Your task to perform on an android device: remove spam from my inbox in the gmail app Image 0: 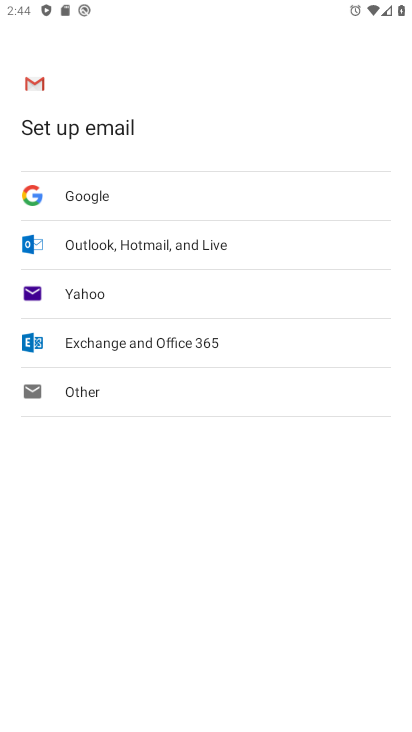
Step 0: press home button
Your task to perform on an android device: remove spam from my inbox in the gmail app Image 1: 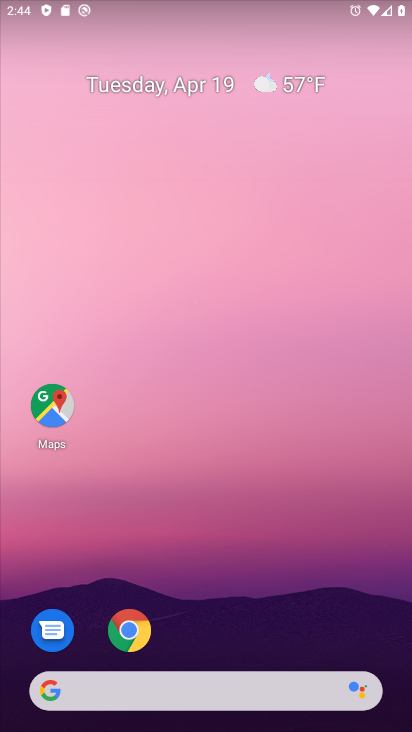
Step 1: drag from (234, 601) to (233, 8)
Your task to perform on an android device: remove spam from my inbox in the gmail app Image 2: 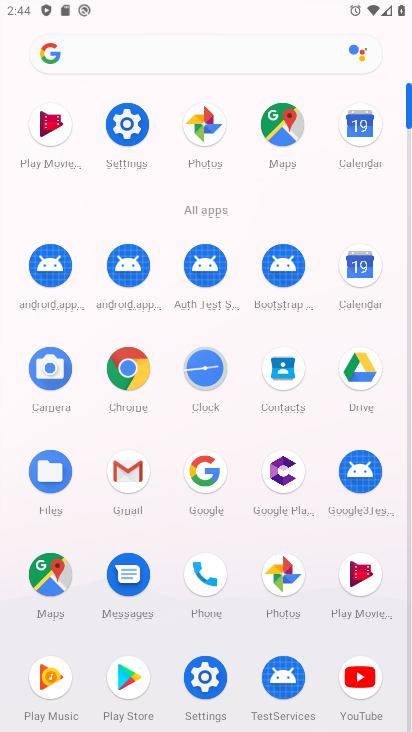
Step 2: click (126, 477)
Your task to perform on an android device: remove spam from my inbox in the gmail app Image 3: 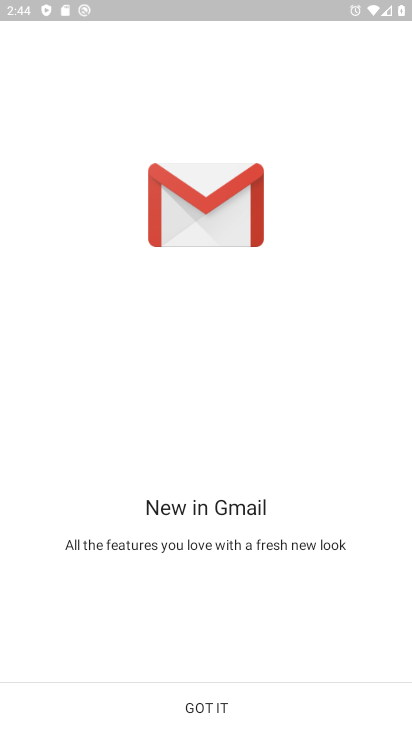
Step 3: click (191, 706)
Your task to perform on an android device: remove spam from my inbox in the gmail app Image 4: 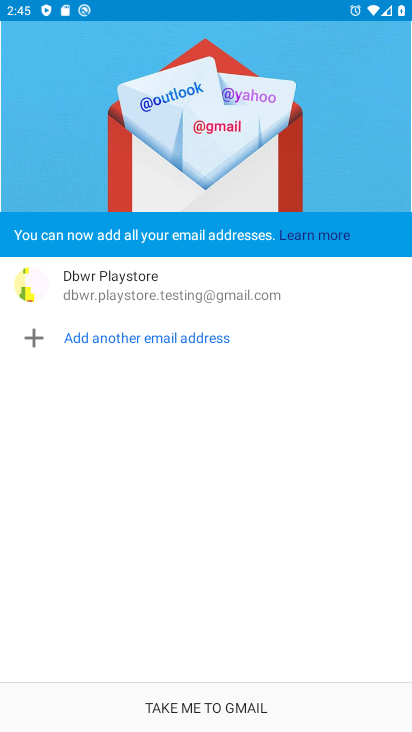
Step 4: click (191, 706)
Your task to perform on an android device: remove spam from my inbox in the gmail app Image 5: 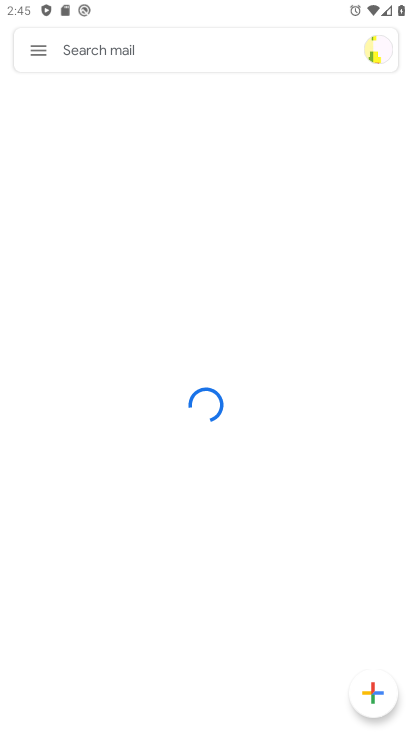
Step 5: click (40, 54)
Your task to perform on an android device: remove spam from my inbox in the gmail app Image 6: 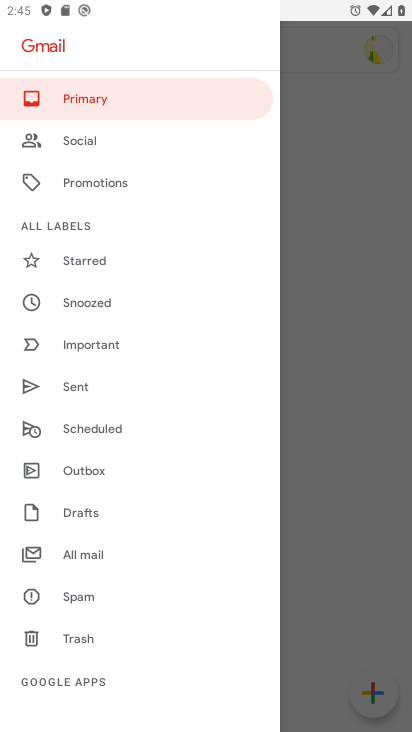
Step 6: click (88, 593)
Your task to perform on an android device: remove spam from my inbox in the gmail app Image 7: 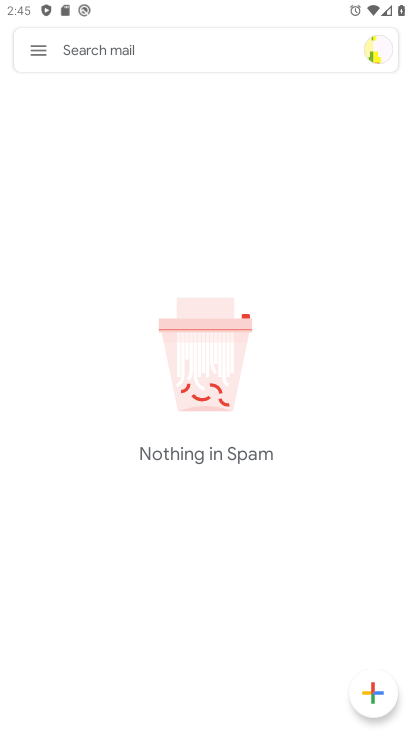
Step 7: click (37, 52)
Your task to perform on an android device: remove spam from my inbox in the gmail app Image 8: 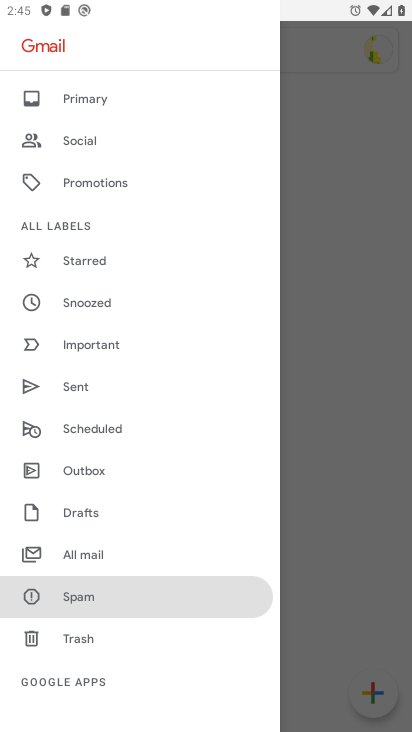
Step 8: task complete